Your task to perform on an android device: snooze an email in the gmail app Image 0: 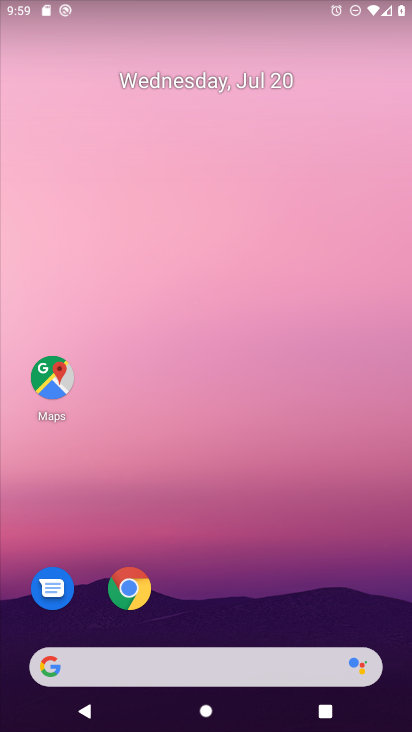
Step 0: drag from (235, 438) to (209, 87)
Your task to perform on an android device: snooze an email in the gmail app Image 1: 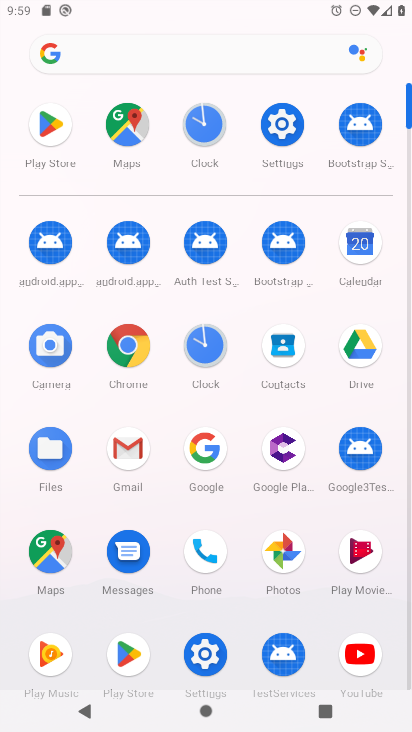
Step 1: click (126, 464)
Your task to perform on an android device: snooze an email in the gmail app Image 2: 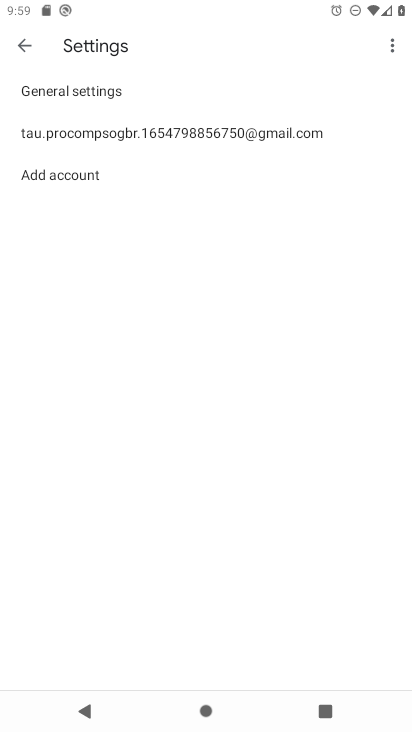
Step 2: click (24, 39)
Your task to perform on an android device: snooze an email in the gmail app Image 3: 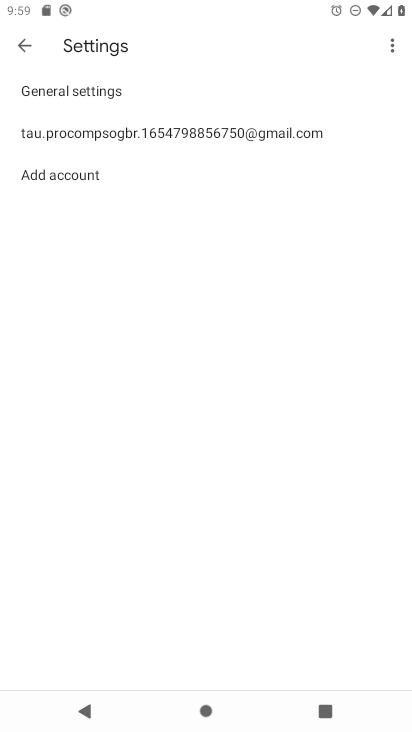
Step 3: click (24, 39)
Your task to perform on an android device: snooze an email in the gmail app Image 4: 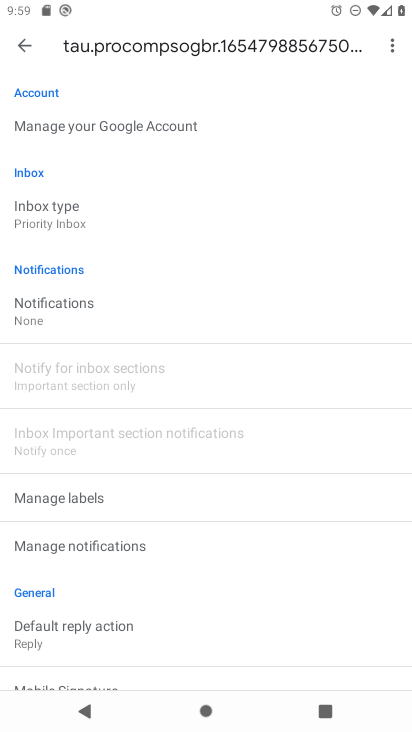
Step 4: click (24, 39)
Your task to perform on an android device: snooze an email in the gmail app Image 5: 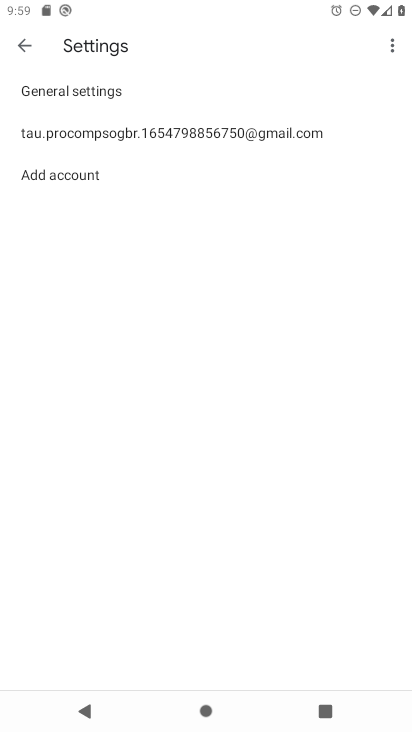
Step 5: click (24, 39)
Your task to perform on an android device: snooze an email in the gmail app Image 6: 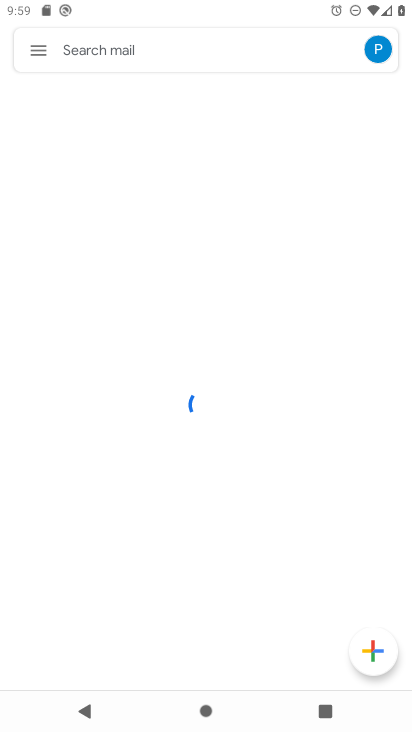
Step 6: press back button
Your task to perform on an android device: snooze an email in the gmail app Image 7: 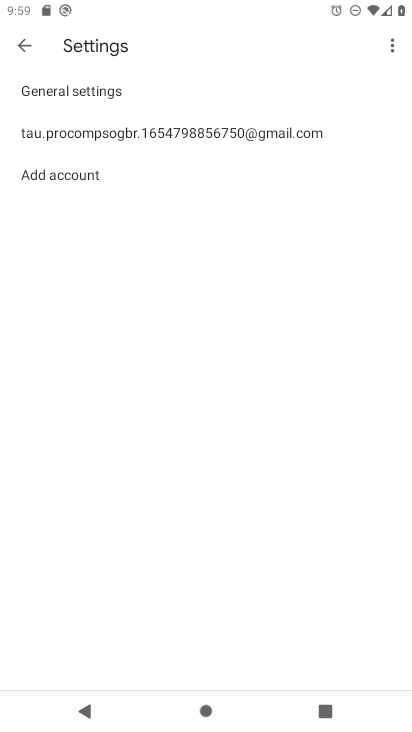
Step 7: press back button
Your task to perform on an android device: snooze an email in the gmail app Image 8: 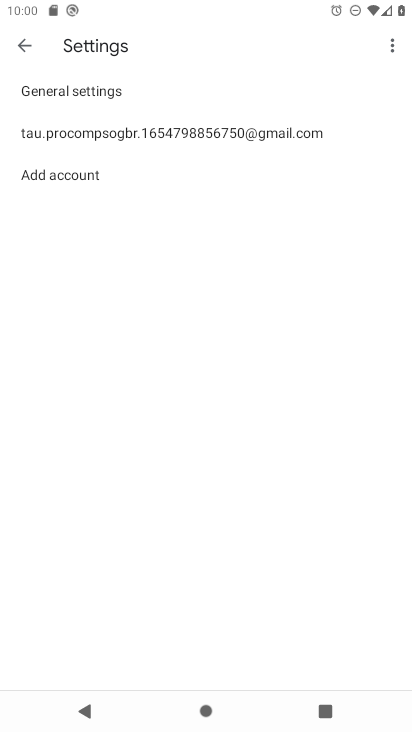
Step 8: press back button
Your task to perform on an android device: snooze an email in the gmail app Image 9: 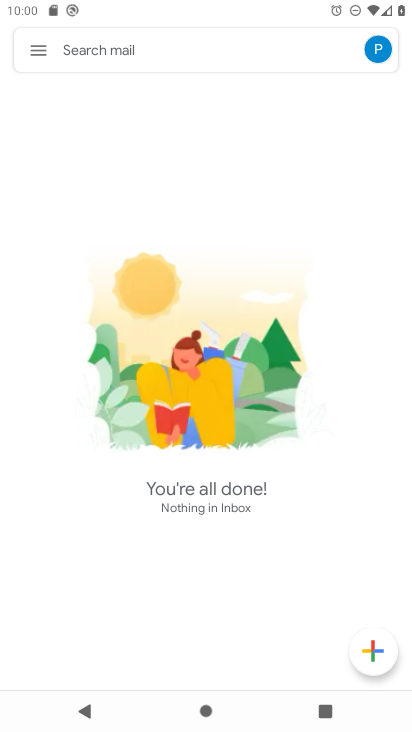
Step 9: click (41, 59)
Your task to perform on an android device: snooze an email in the gmail app Image 10: 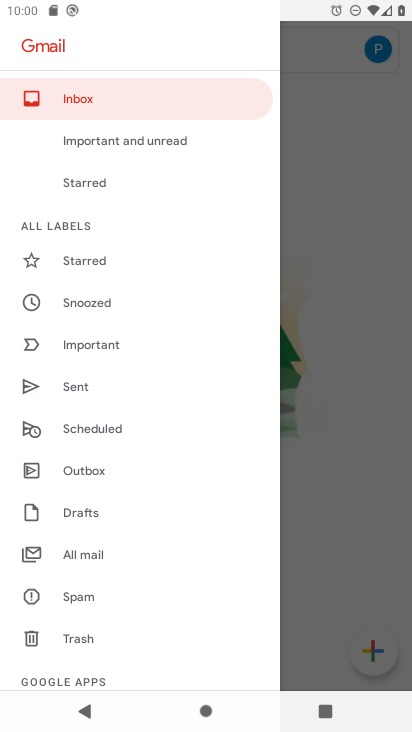
Step 10: click (43, 54)
Your task to perform on an android device: snooze an email in the gmail app Image 11: 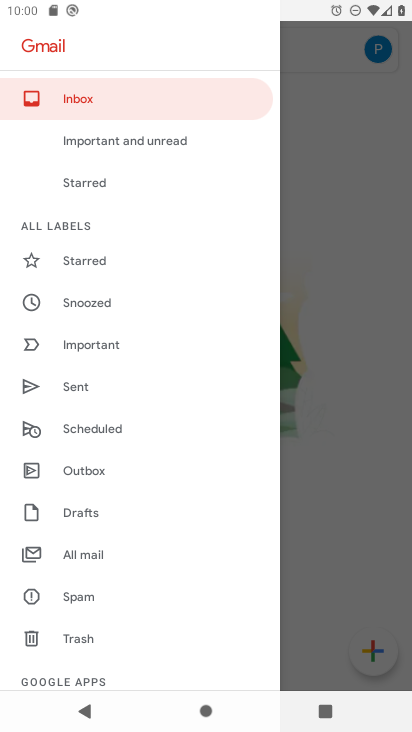
Step 11: click (78, 549)
Your task to perform on an android device: snooze an email in the gmail app Image 12: 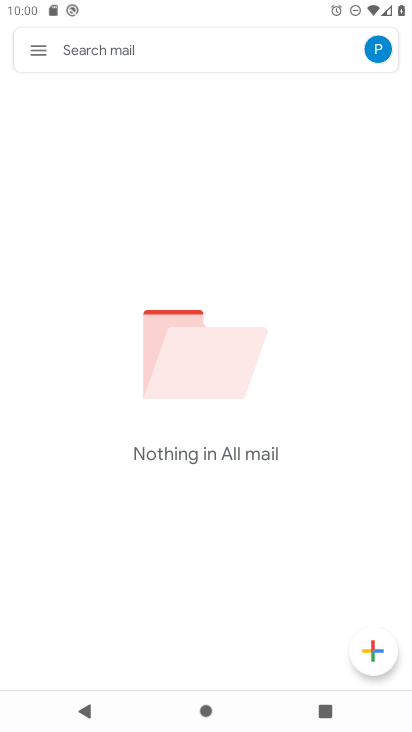
Step 12: task complete